Your task to perform on an android device: clear history in the chrome app Image 0: 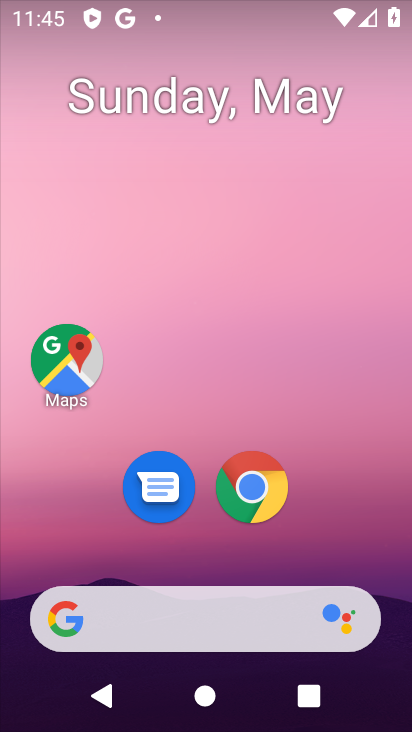
Step 0: click (249, 496)
Your task to perform on an android device: clear history in the chrome app Image 1: 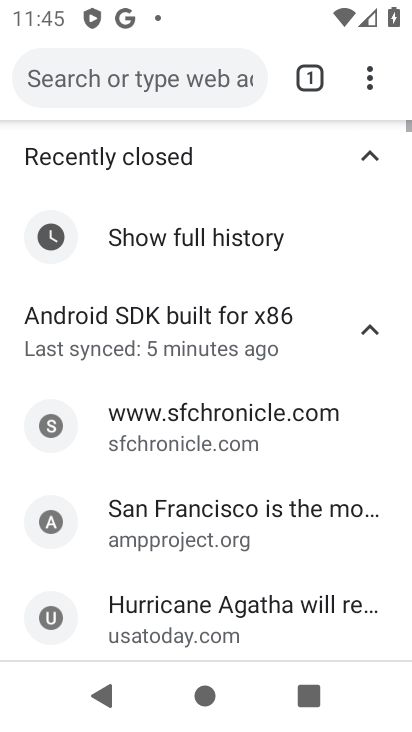
Step 1: click (369, 85)
Your task to perform on an android device: clear history in the chrome app Image 2: 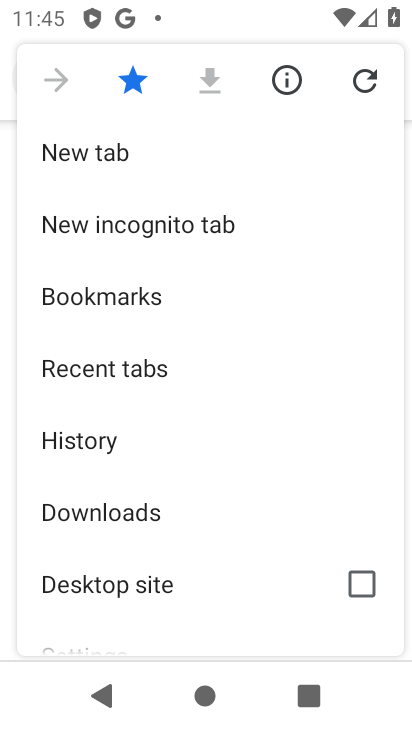
Step 2: click (98, 448)
Your task to perform on an android device: clear history in the chrome app Image 3: 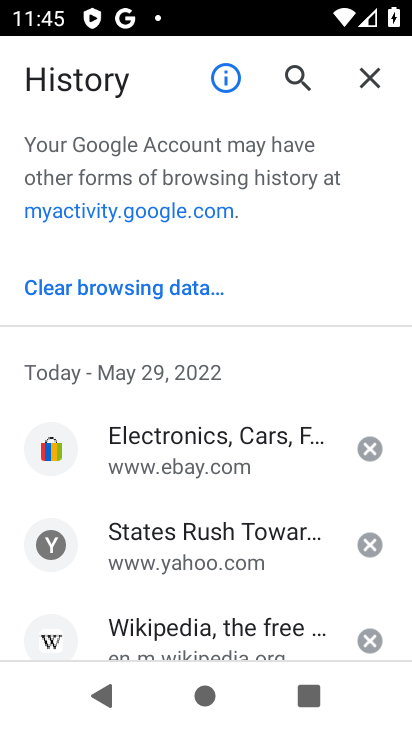
Step 3: click (130, 296)
Your task to perform on an android device: clear history in the chrome app Image 4: 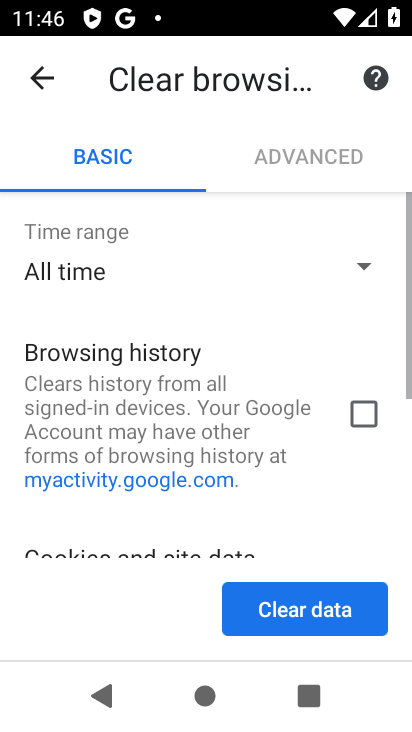
Step 4: click (307, 406)
Your task to perform on an android device: clear history in the chrome app Image 5: 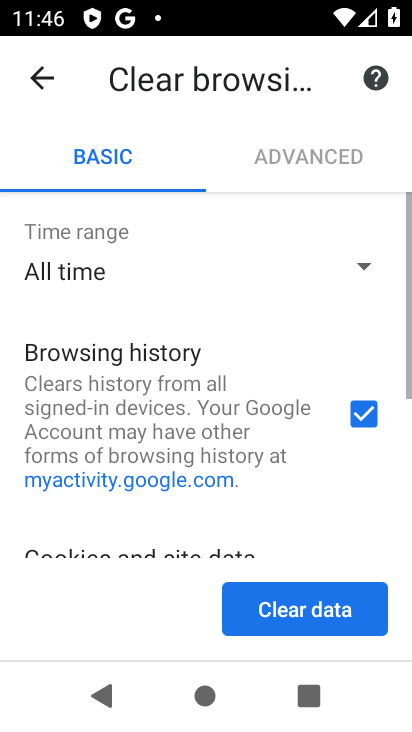
Step 5: click (301, 601)
Your task to perform on an android device: clear history in the chrome app Image 6: 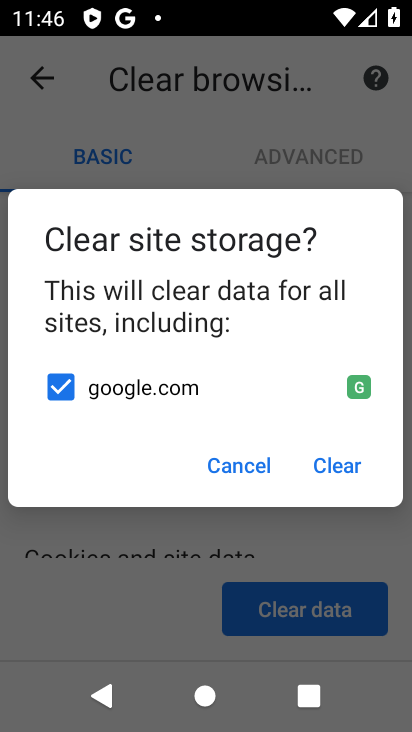
Step 6: click (342, 460)
Your task to perform on an android device: clear history in the chrome app Image 7: 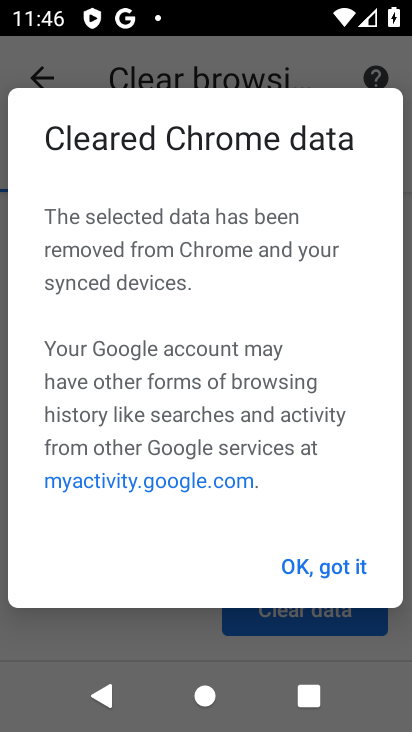
Step 7: task complete